Your task to perform on an android device: open a bookmark in the chrome app Image 0: 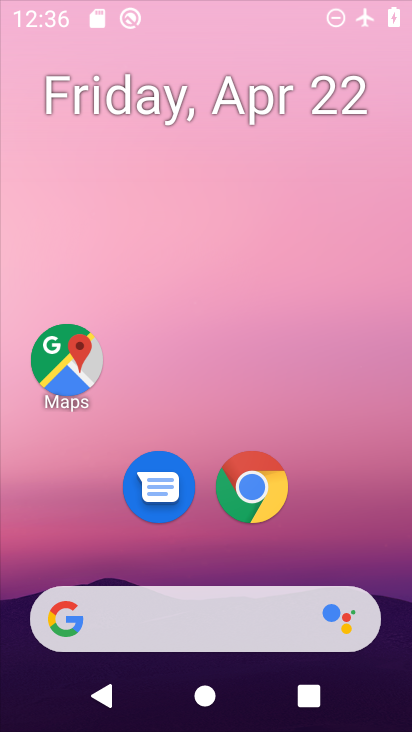
Step 0: drag from (323, 376) to (318, 199)
Your task to perform on an android device: open a bookmark in the chrome app Image 1: 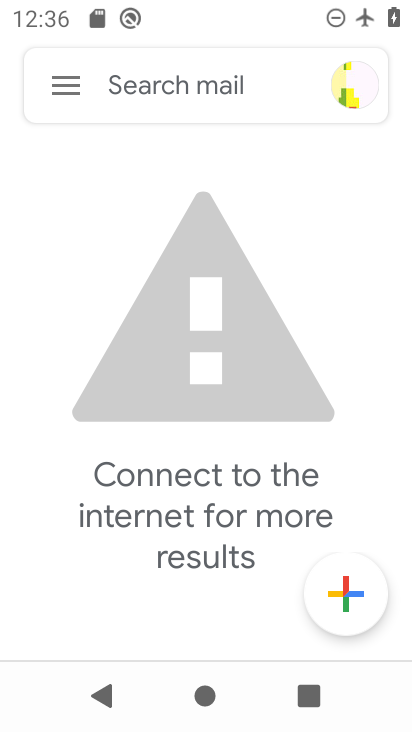
Step 1: drag from (269, 647) to (298, 253)
Your task to perform on an android device: open a bookmark in the chrome app Image 2: 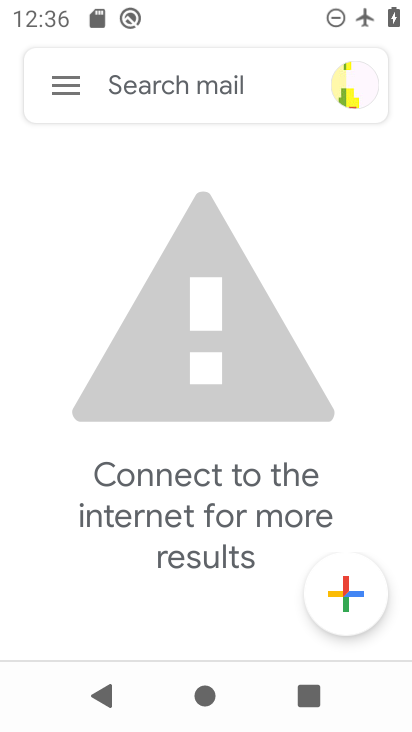
Step 2: press home button
Your task to perform on an android device: open a bookmark in the chrome app Image 3: 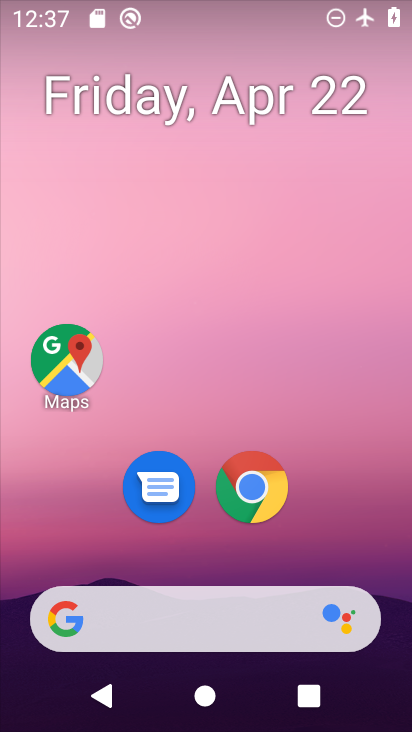
Step 3: drag from (326, 451) to (320, 148)
Your task to perform on an android device: open a bookmark in the chrome app Image 4: 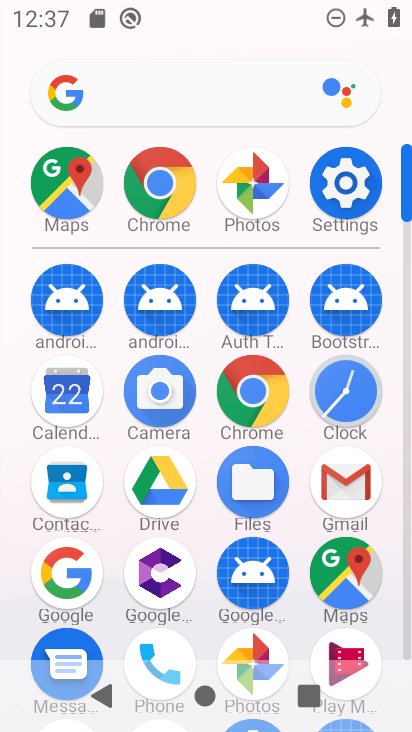
Step 4: click (257, 390)
Your task to perform on an android device: open a bookmark in the chrome app Image 5: 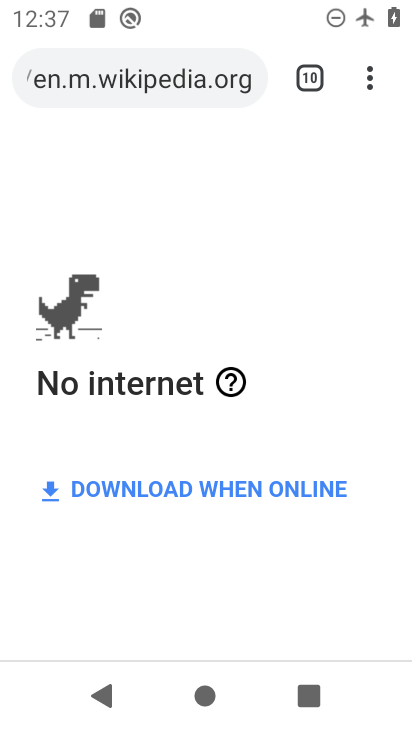
Step 5: click (355, 76)
Your task to perform on an android device: open a bookmark in the chrome app Image 6: 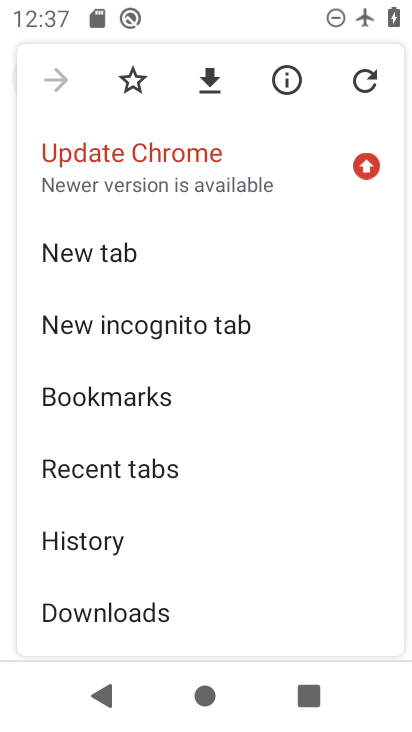
Step 6: click (164, 406)
Your task to perform on an android device: open a bookmark in the chrome app Image 7: 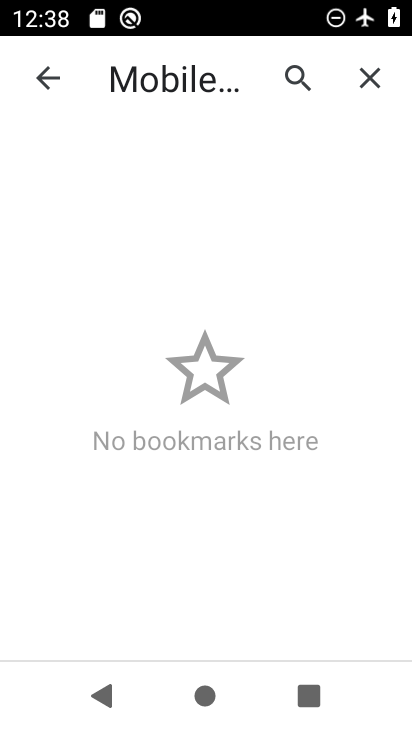
Step 7: task complete